Your task to perform on an android device: Go to Android settings Image 0: 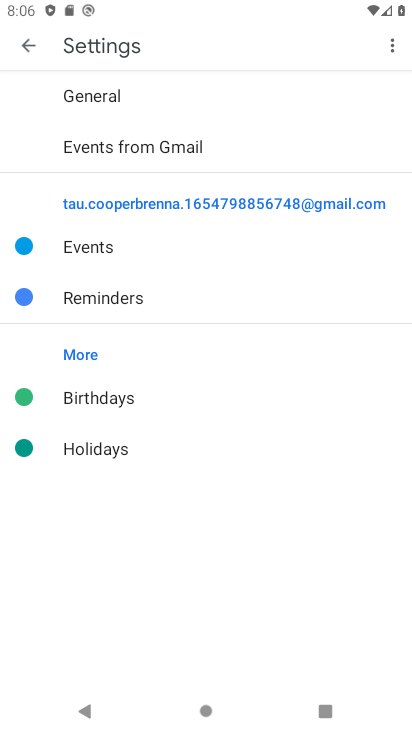
Step 0: press home button
Your task to perform on an android device: Go to Android settings Image 1: 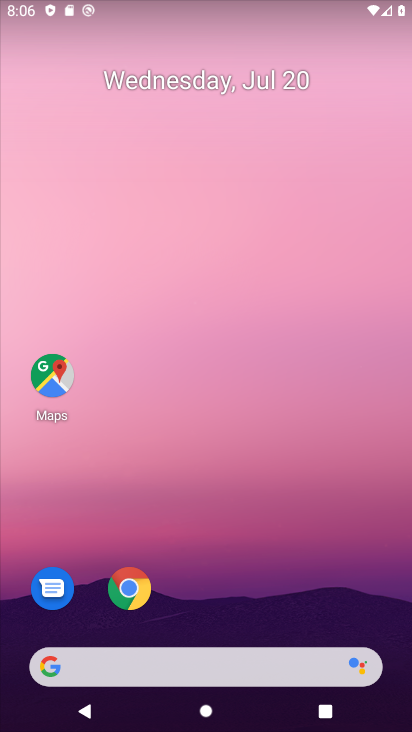
Step 1: drag from (19, 710) to (177, 166)
Your task to perform on an android device: Go to Android settings Image 2: 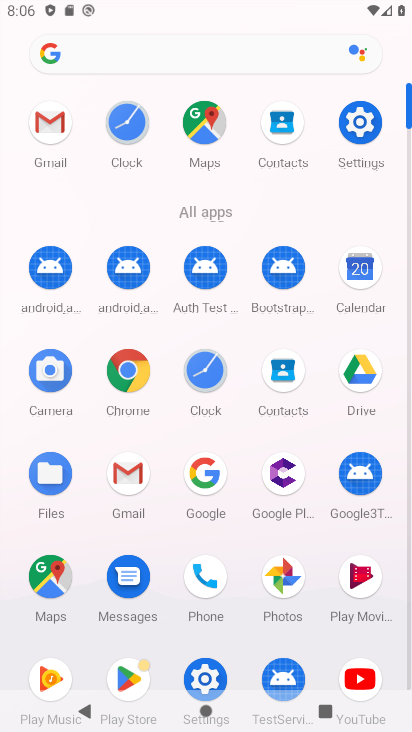
Step 2: click (211, 672)
Your task to perform on an android device: Go to Android settings Image 3: 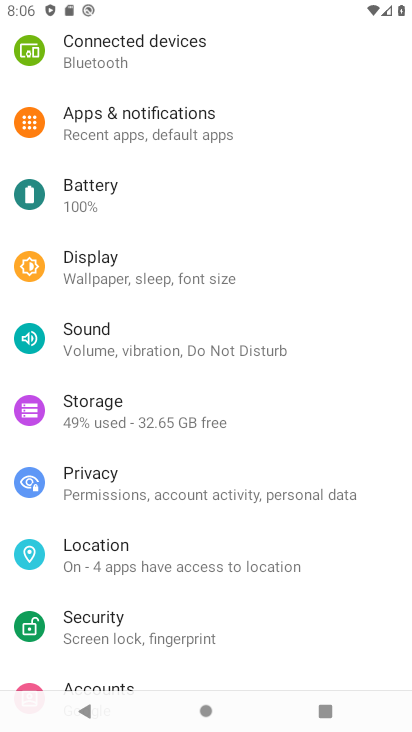
Step 3: drag from (212, 624) to (205, 266)
Your task to perform on an android device: Go to Android settings Image 4: 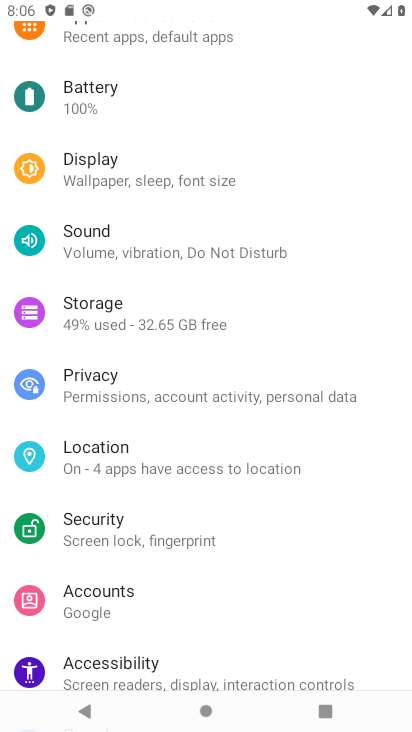
Step 4: drag from (249, 664) to (222, 383)
Your task to perform on an android device: Go to Android settings Image 5: 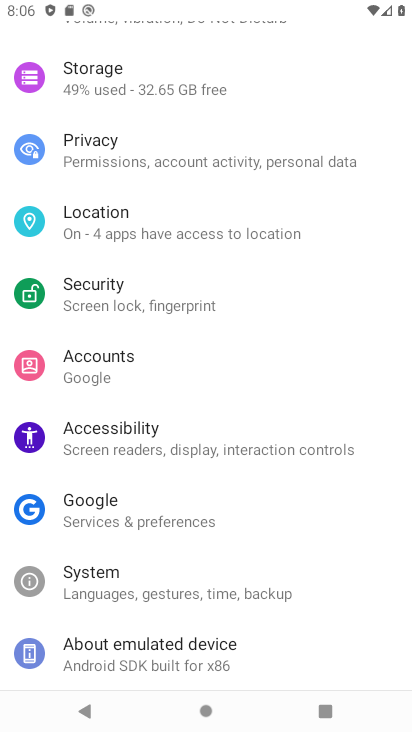
Step 5: click (124, 652)
Your task to perform on an android device: Go to Android settings Image 6: 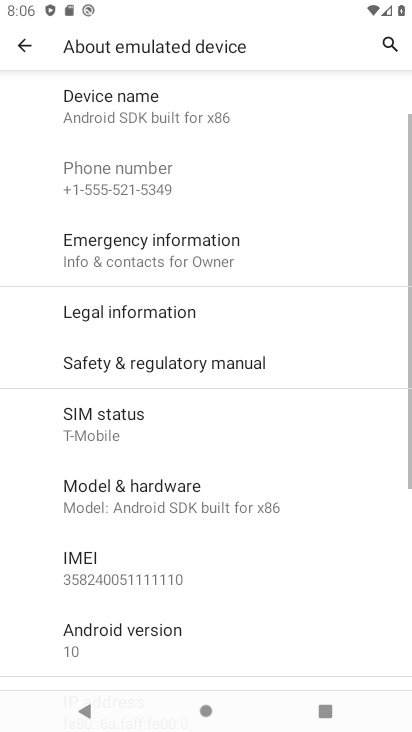
Step 6: click (124, 645)
Your task to perform on an android device: Go to Android settings Image 7: 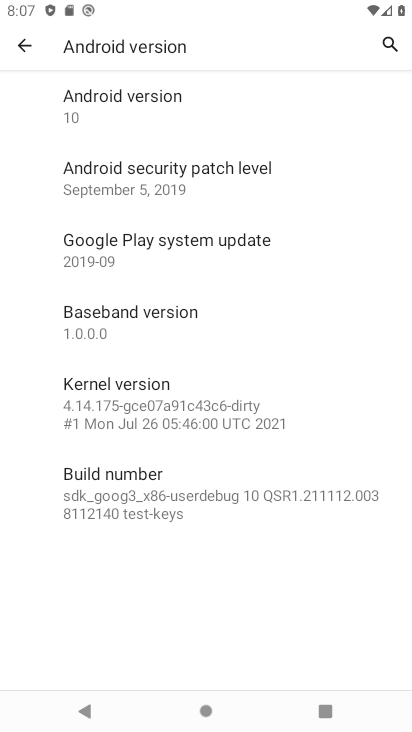
Step 7: task complete